Your task to perform on an android device: Open CNN.com Image 0: 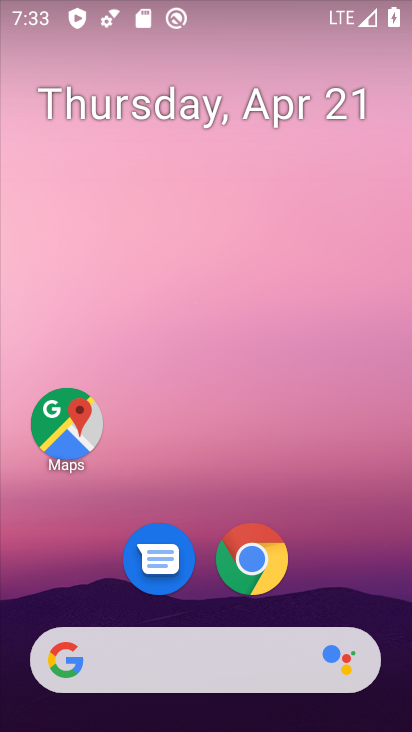
Step 0: drag from (374, 570) to (366, 138)
Your task to perform on an android device: Open CNN.com Image 1: 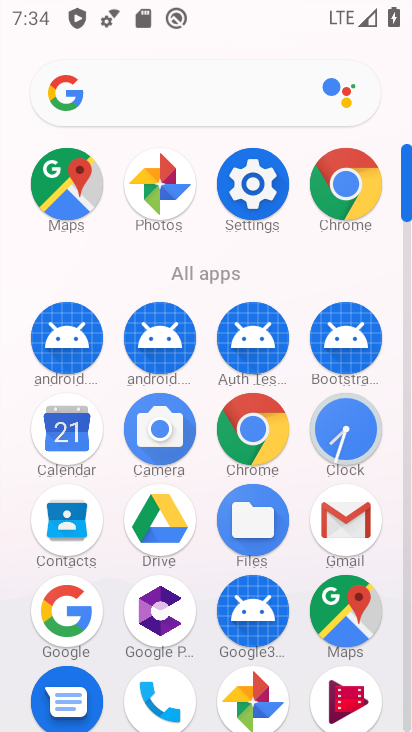
Step 1: click (256, 437)
Your task to perform on an android device: Open CNN.com Image 2: 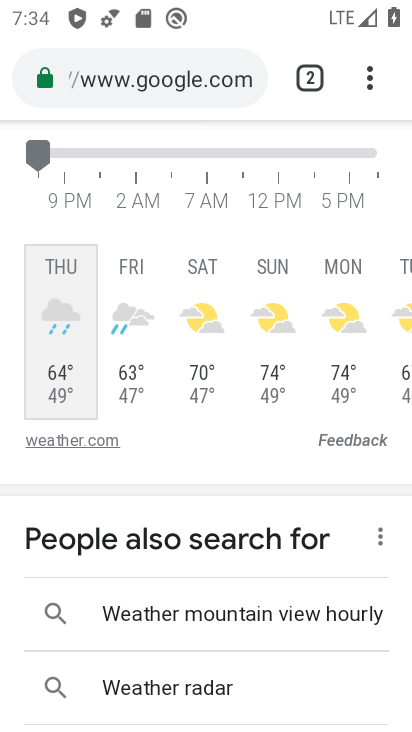
Step 2: click (183, 74)
Your task to perform on an android device: Open CNN.com Image 3: 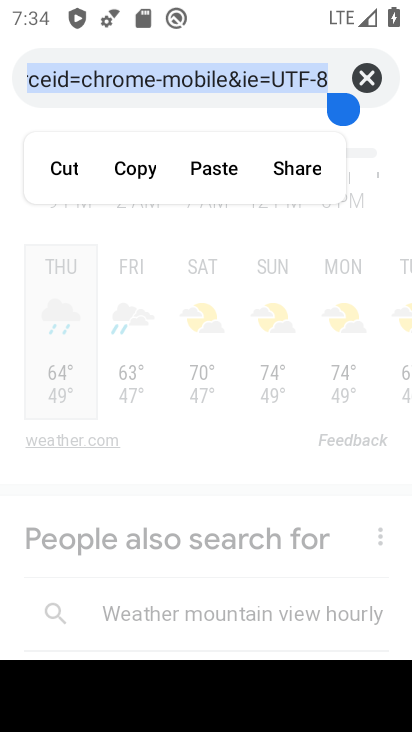
Step 3: click (370, 81)
Your task to perform on an android device: Open CNN.com Image 4: 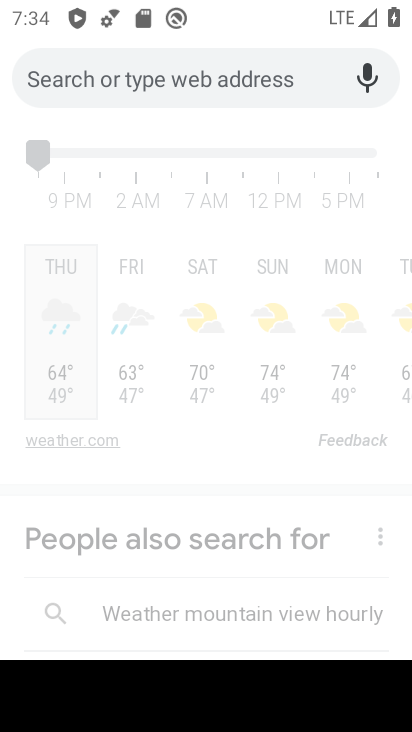
Step 4: type "cnn.com"
Your task to perform on an android device: Open CNN.com Image 5: 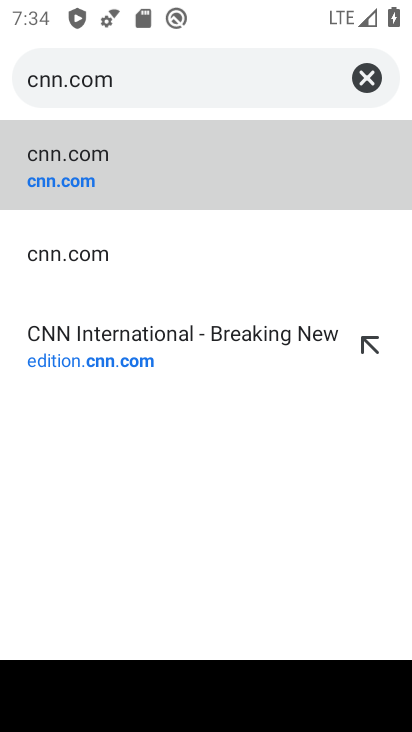
Step 5: click (68, 175)
Your task to perform on an android device: Open CNN.com Image 6: 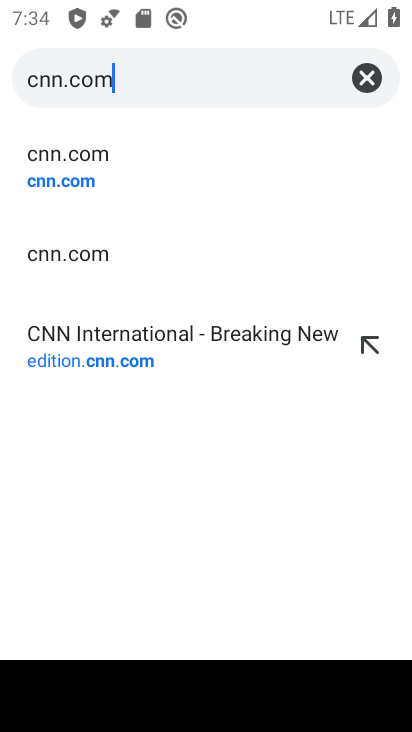
Step 6: click (69, 185)
Your task to perform on an android device: Open CNN.com Image 7: 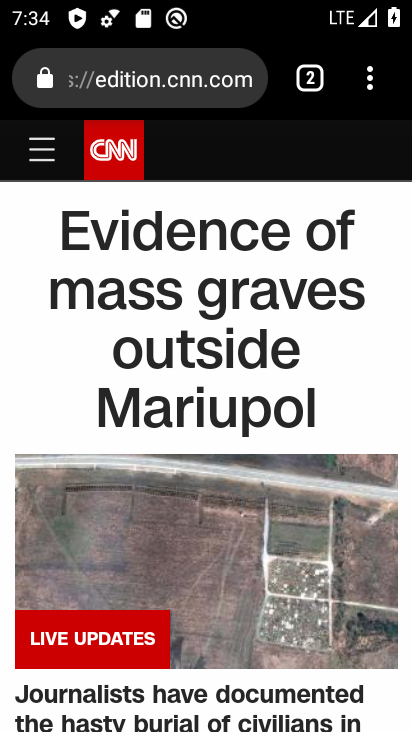
Step 7: task complete